Your task to perform on an android device: turn off picture-in-picture Image 0: 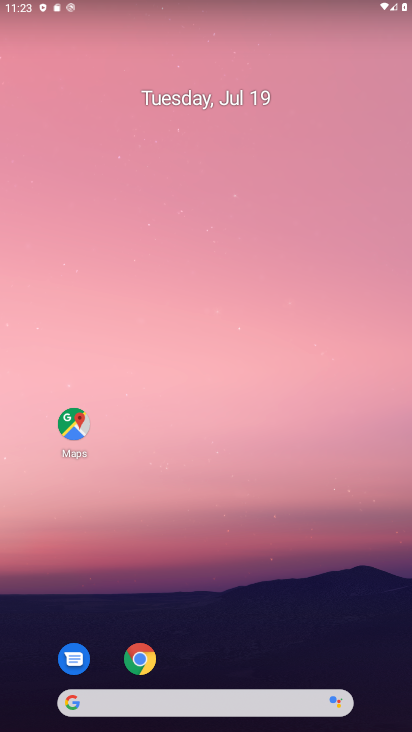
Step 0: press home button
Your task to perform on an android device: turn off picture-in-picture Image 1: 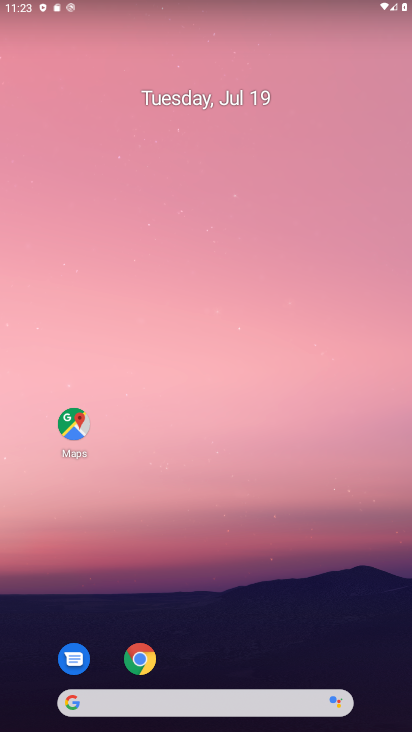
Step 1: click (140, 656)
Your task to perform on an android device: turn off picture-in-picture Image 2: 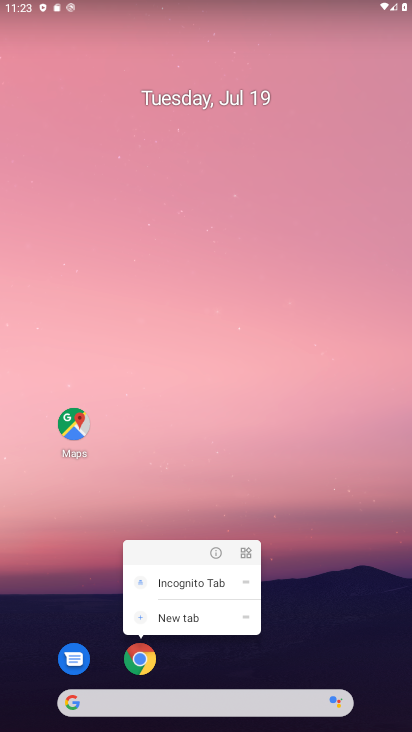
Step 2: click (215, 548)
Your task to perform on an android device: turn off picture-in-picture Image 3: 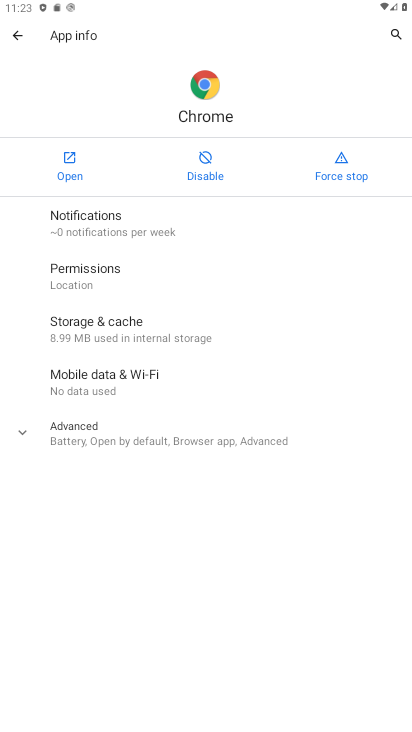
Step 3: click (24, 429)
Your task to perform on an android device: turn off picture-in-picture Image 4: 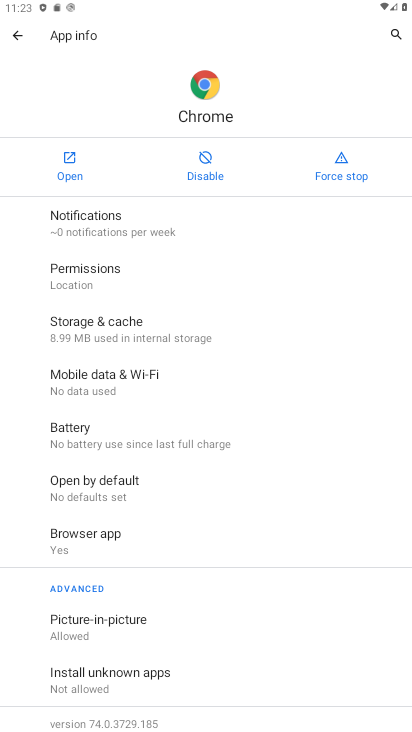
Step 4: click (108, 625)
Your task to perform on an android device: turn off picture-in-picture Image 5: 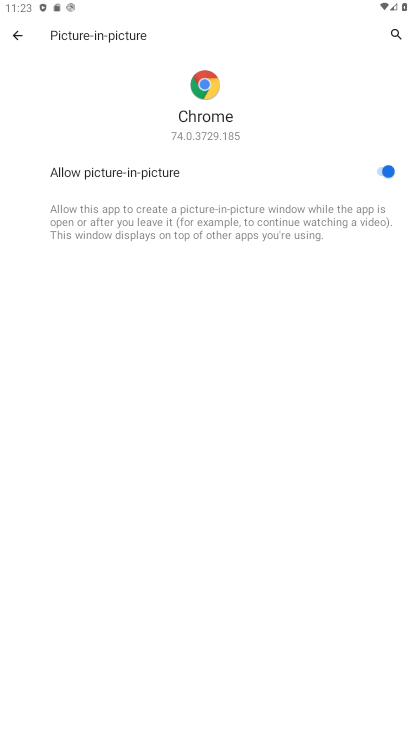
Step 5: click (380, 168)
Your task to perform on an android device: turn off picture-in-picture Image 6: 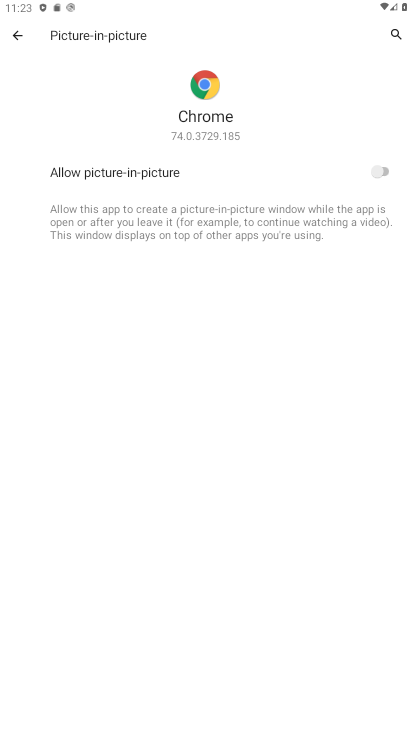
Step 6: task complete